Your task to perform on an android device: empty trash in google photos Image 0: 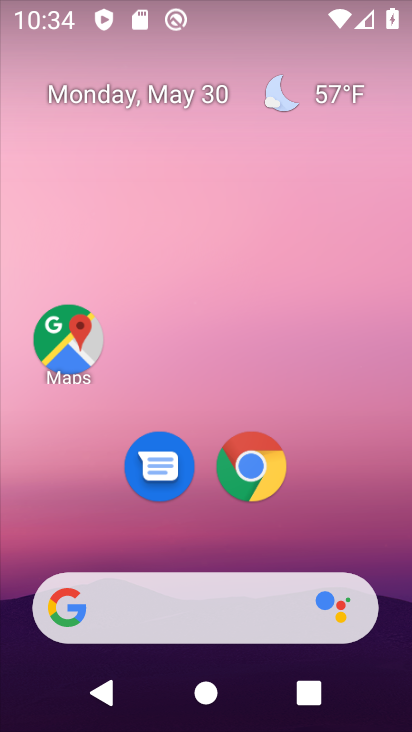
Step 0: drag from (51, 567) to (198, 106)
Your task to perform on an android device: empty trash in google photos Image 1: 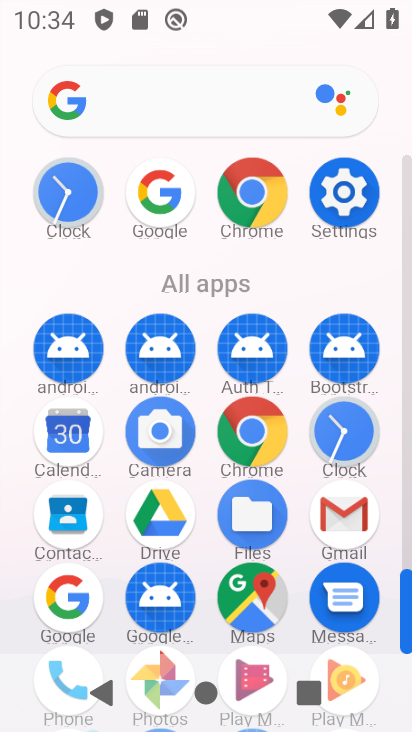
Step 1: drag from (181, 614) to (225, 381)
Your task to perform on an android device: empty trash in google photos Image 2: 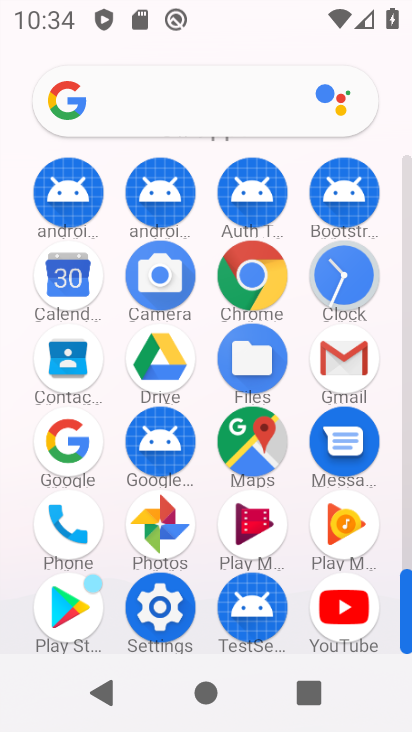
Step 2: click (164, 535)
Your task to perform on an android device: empty trash in google photos Image 3: 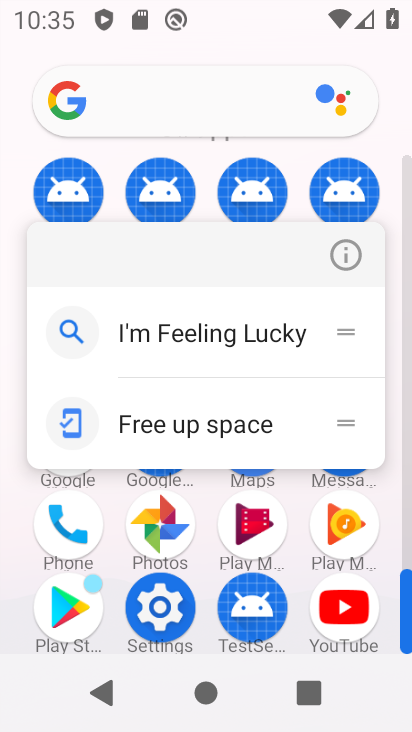
Step 3: click (166, 521)
Your task to perform on an android device: empty trash in google photos Image 4: 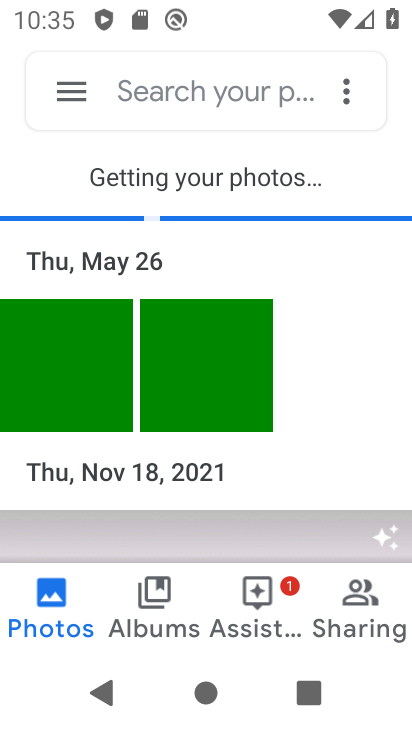
Step 4: click (84, 101)
Your task to perform on an android device: empty trash in google photos Image 5: 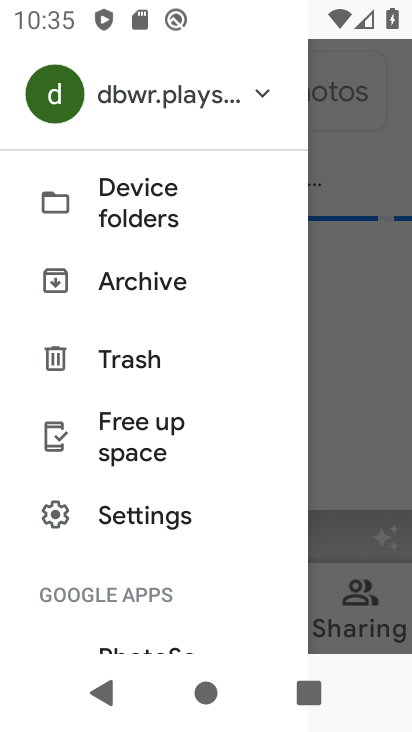
Step 5: click (161, 365)
Your task to perform on an android device: empty trash in google photos Image 6: 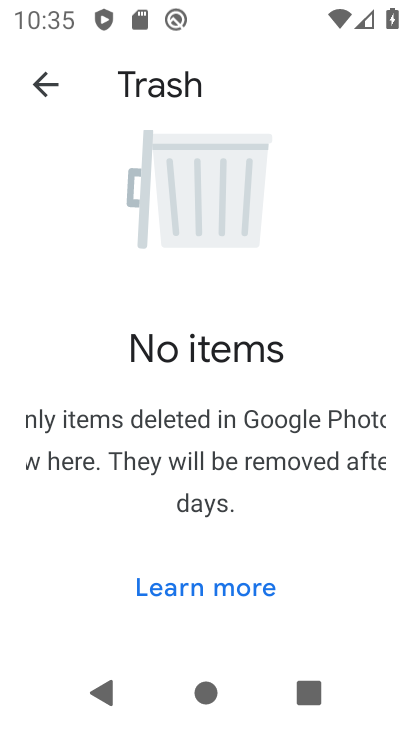
Step 6: task complete